Your task to perform on an android device: Go to privacy settings Image 0: 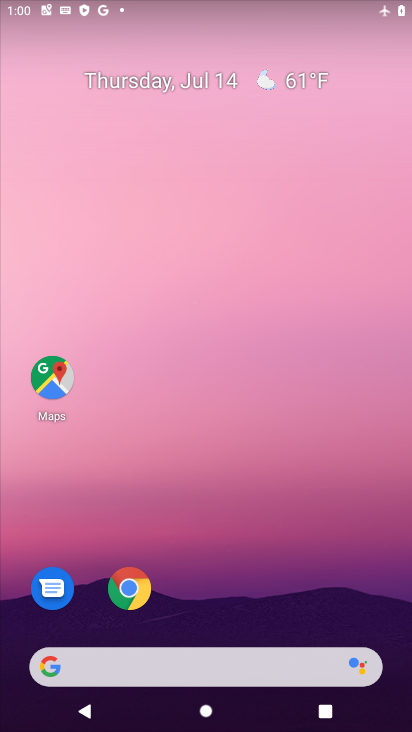
Step 0: drag from (219, 624) to (194, 127)
Your task to perform on an android device: Go to privacy settings Image 1: 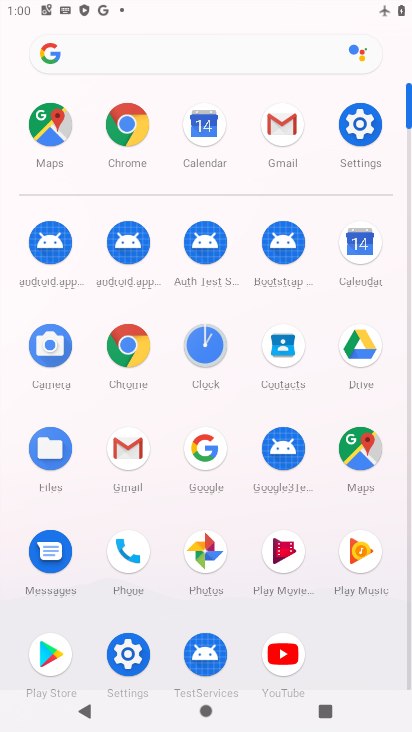
Step 1: click (130, 648)
Your task to perform on an android device: Go to privacy settings Image 2: 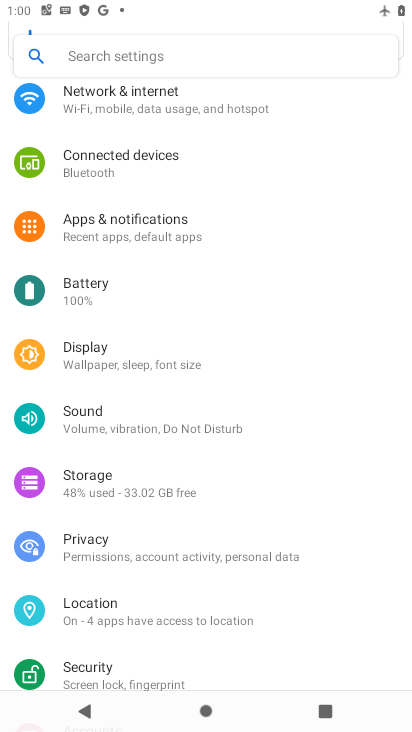
Step 2: click (111, 549)
Your task to perform on an android device: Go to privacy settings Image 3: 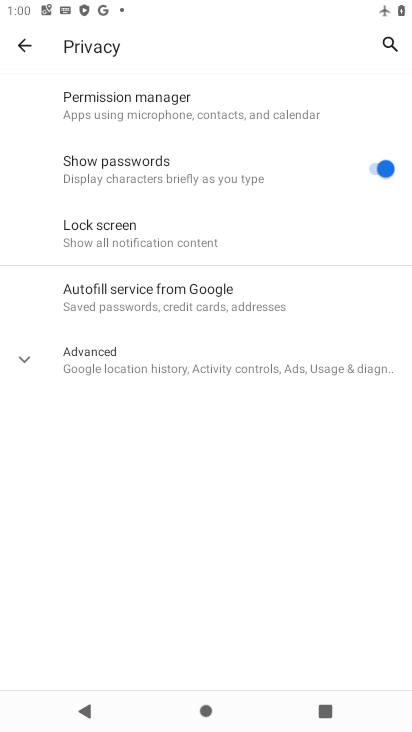
Step 3: task complete